Your task to perform on an android device: Open eBay Image 0: 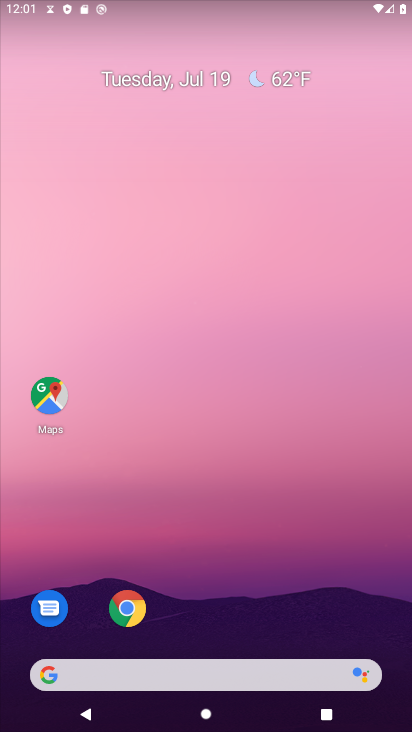
Step 0: drag from (223, 636) to (204, 147)
Your task to perform on an android device: Open eBay Image 1: 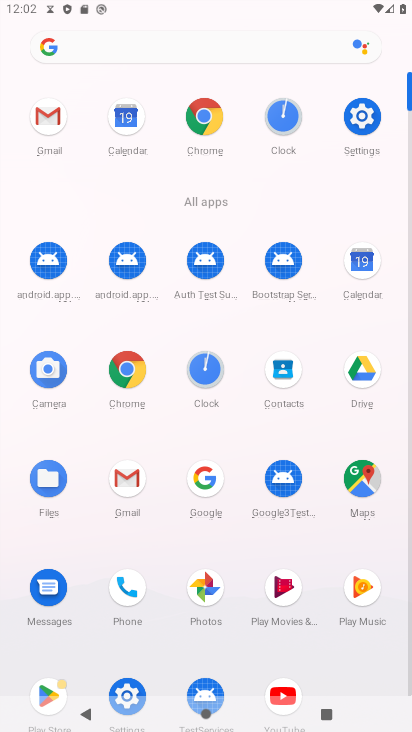
Step 1: click (205, 124)
Your task to perform on an android device: Open eBay Image 2: 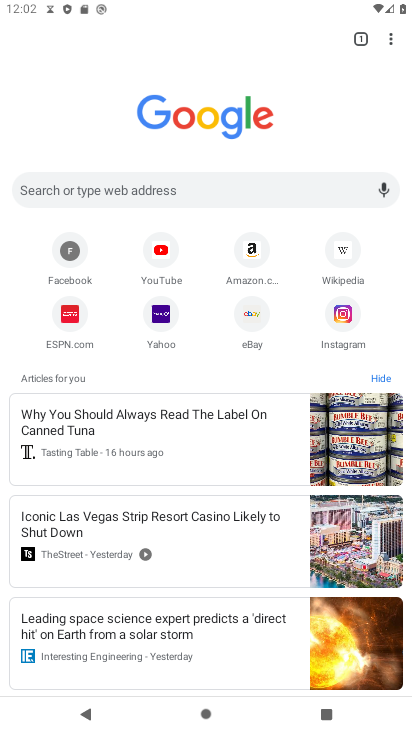
Step 2: click (258, 317)
Your task to perform on an android device: Open eBay Image 3: 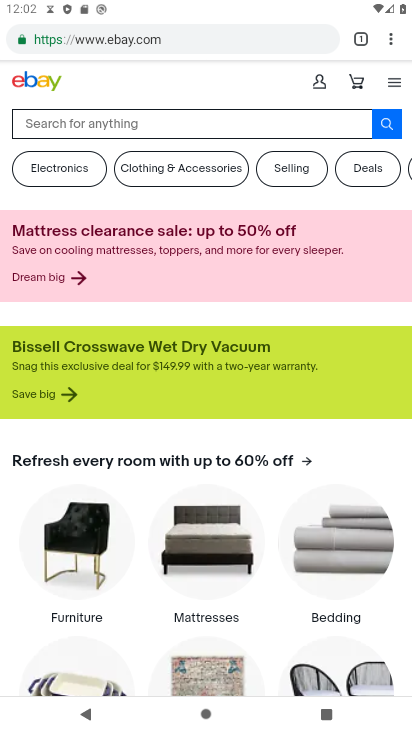
Step 3: task complete